Your task to perform on an android device: Open calendar and show me the second week of next month Image 0: 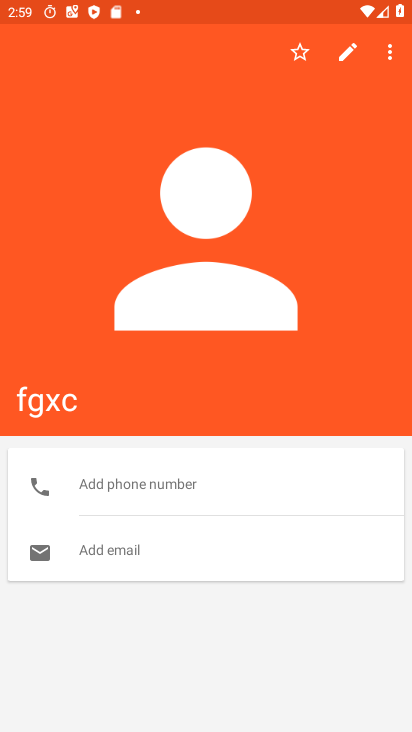
Step 0: press home button
Your task to perform on an android device: Open calendar and show me the second week of next month Image 1: 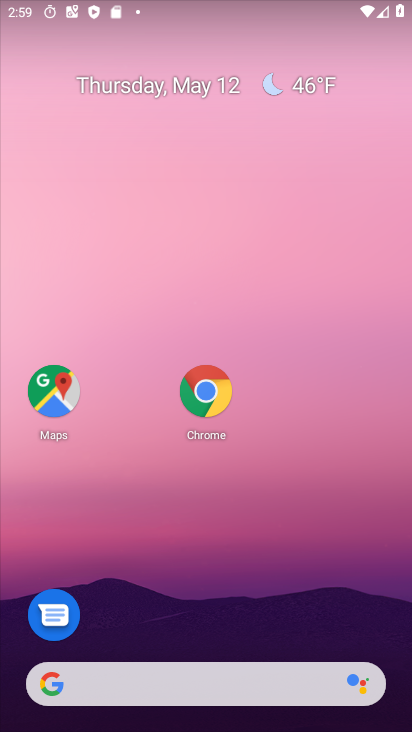
Step 1: drag from (198, 576) to (212, 138)
Your task to perform on an android device: Open calendar and show me the second week of next month Image 2: 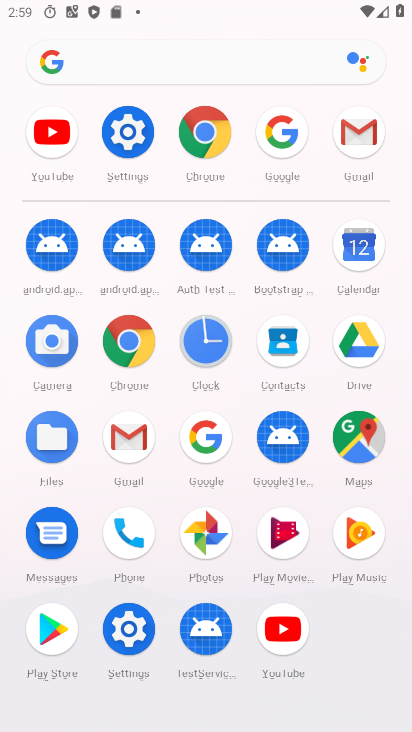
Step 2: click (361, 241)
Your task to perform on an android device: Open calendar and show me the second week of next month Image 3: 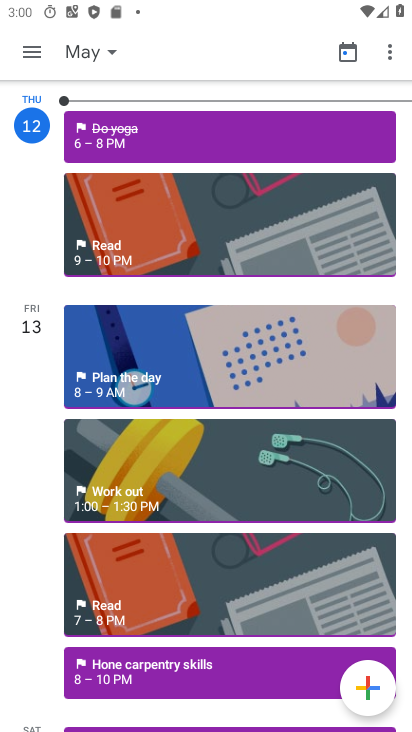
Step 3: click (103, 52)
Your task to perform on an android device: Open calendar and show me the second week of next month Image 4: 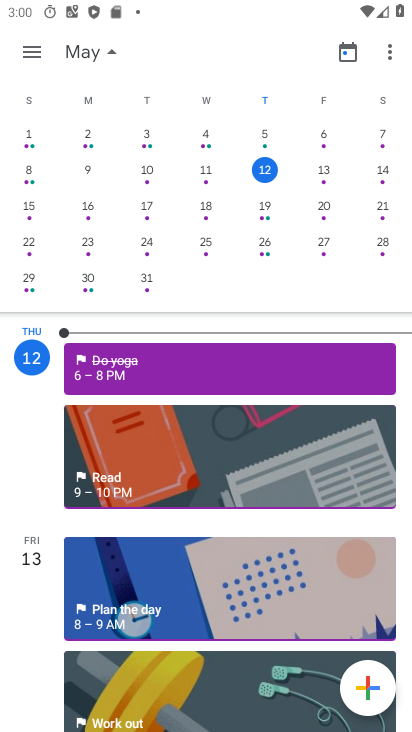
Step 4: drag from (362, 263) to (8, 239)
Your task to perform on an android device: Open calendar and show me the second week of next month Image 5: 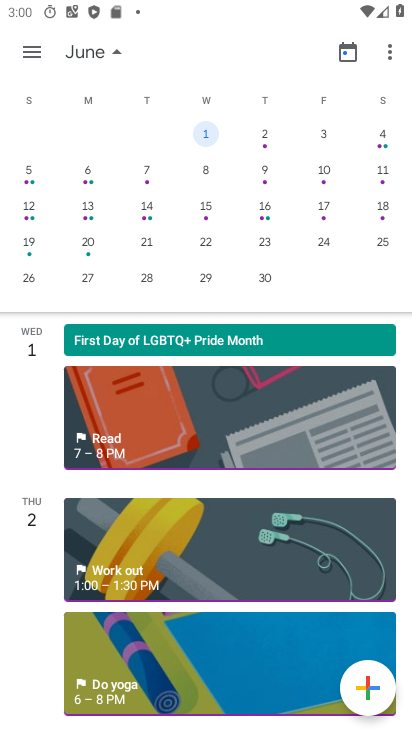
Step 5: click (268, 169)
Your task to perform on an android device: Open calendar and show me the second week of next month Image 6: 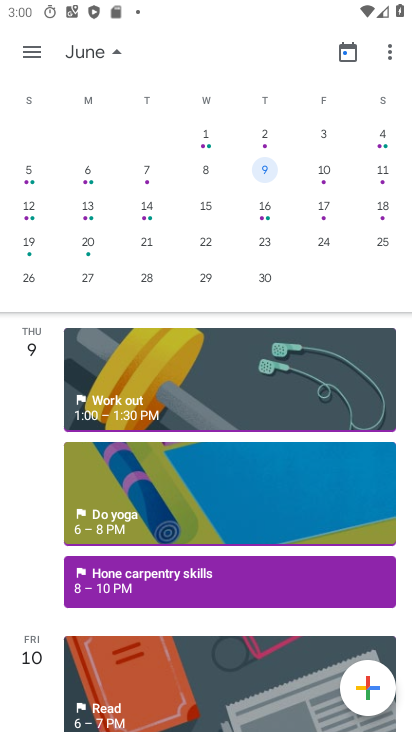
Step 6: task complete